Your task to perform on an android device: toggle wifi Image 0: 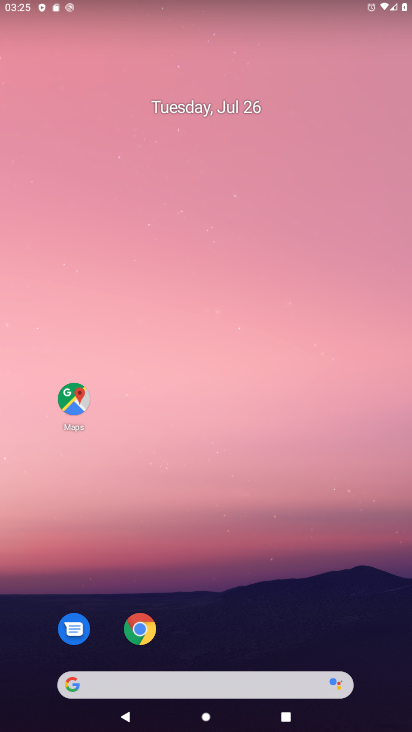
Step 0: drag from (291, 593) to (289, 236)
Your task to perform on an android device: toggle wifi Image 1: 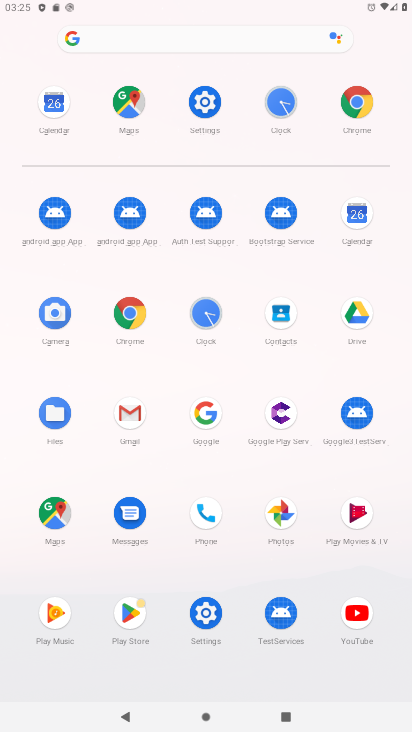
Step 1: drag from (176, 1) to (160, 551)
Your task to perform on an android device: toggle wifi Image 2: 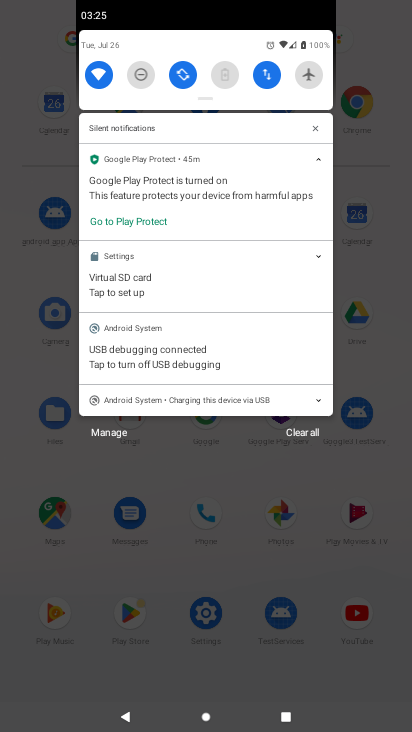
Step 2: click (99, 76)
Your task to perform on an android device: toggle wifi Image 3: 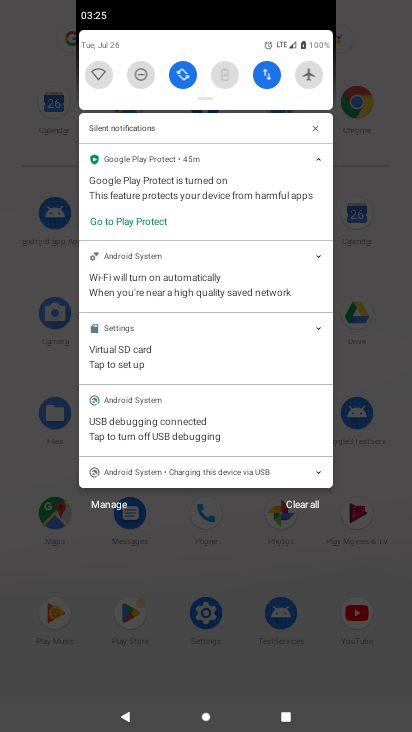
Step 3: task complete